Your task to perform on an android device: Turn off the flashlight Image 0: 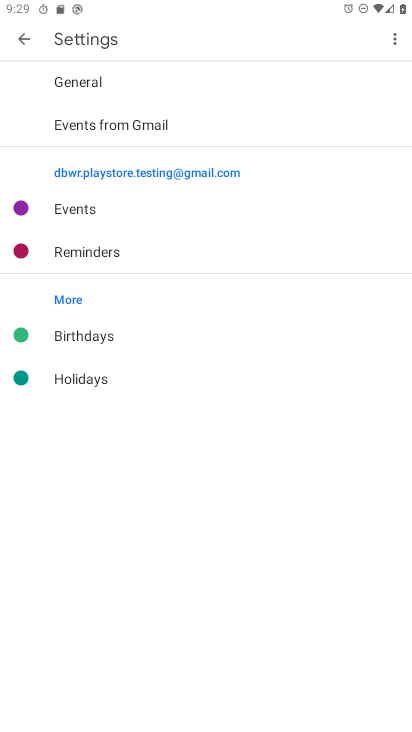
Step 0: press home button
Your task to perform on an android device: Turn off the flashlight Image 1: 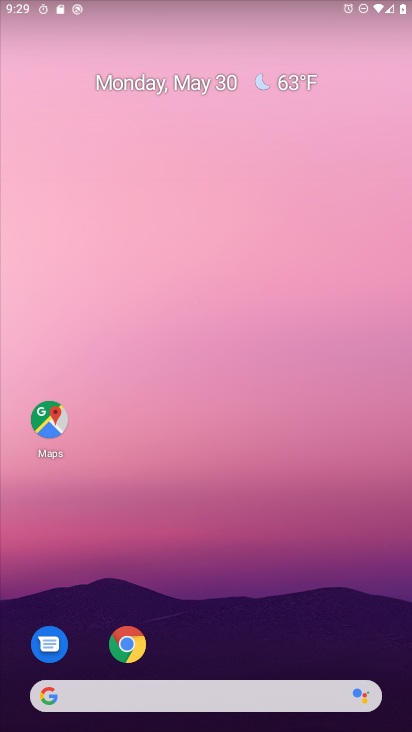
Step 1: drag from (195, 631) to (247, 61)
Your task to perform on an android device: Turn off the flashlight Image 2: 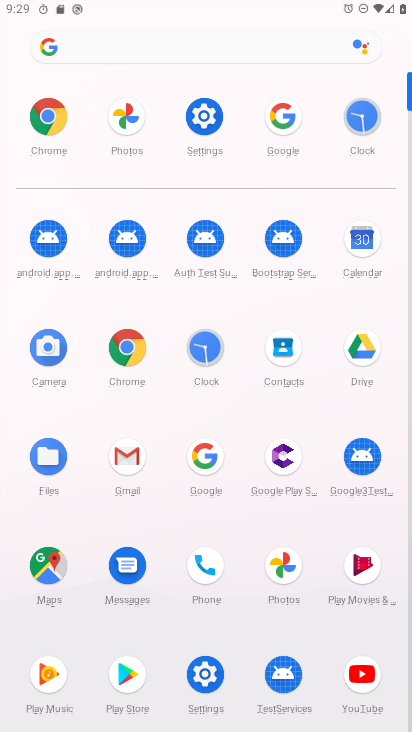
Step 2: click (208, 114)
Your task to perform on an android device: Turn off the flashlight Image 3: 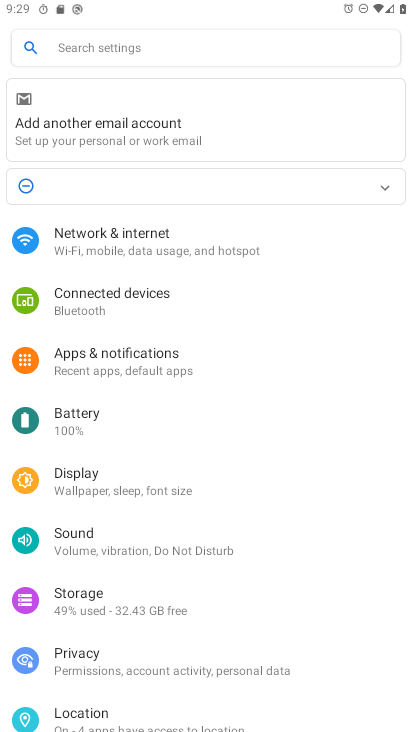
Step 3: click (142, 50)
Your task to perform on an android device: Turn off the flashlight Image 4: 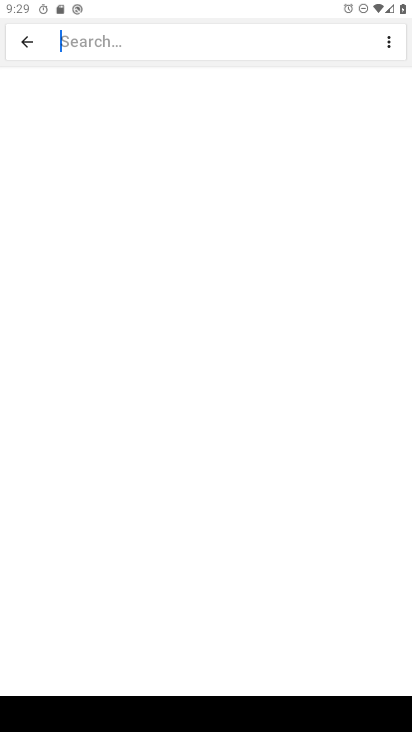
Step 4: type "flash"
Your task to perform on an android device: Turn off the flashlight Image 5: 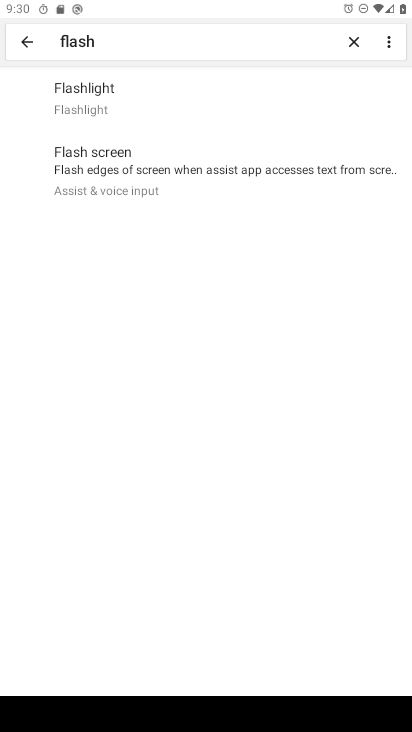
Step 5: task complete